Your task to perform on an android device: change timer sound Image 0: 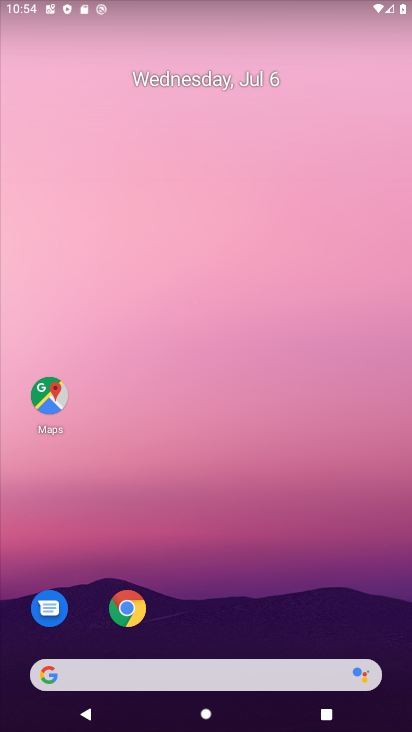
Step 0: drag from (207, 540) to (216, 334)
Your task to perform on an android device: change timer sound Image 1: 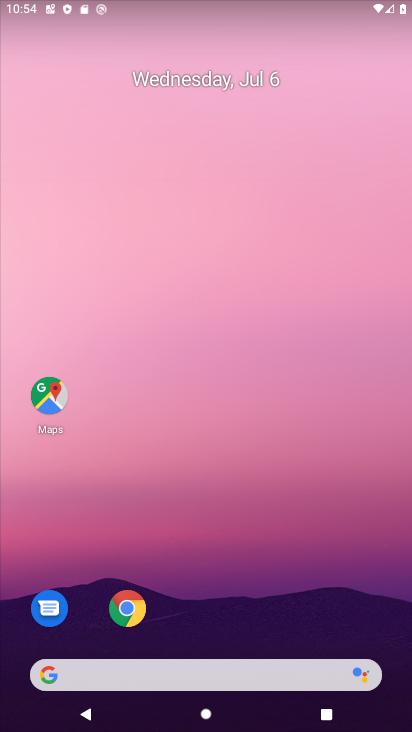
Step 1: drag from (196, 656) to (221, 174)
Your task to perform on an android device: change timer sound Image 2: 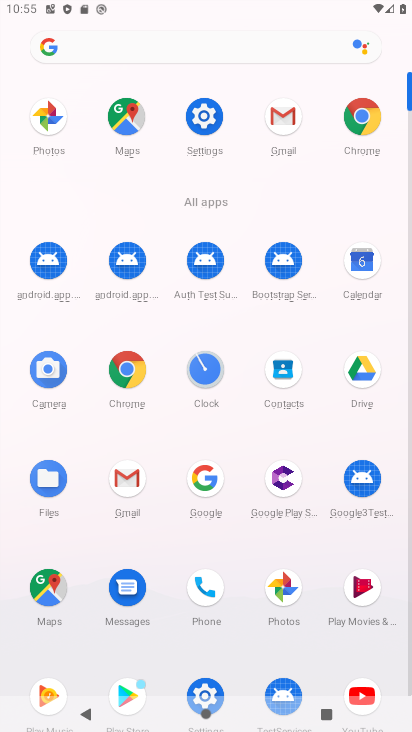
Step 2: click (200, 374)
Your task to perform on an android device: change timer sound Image 3: 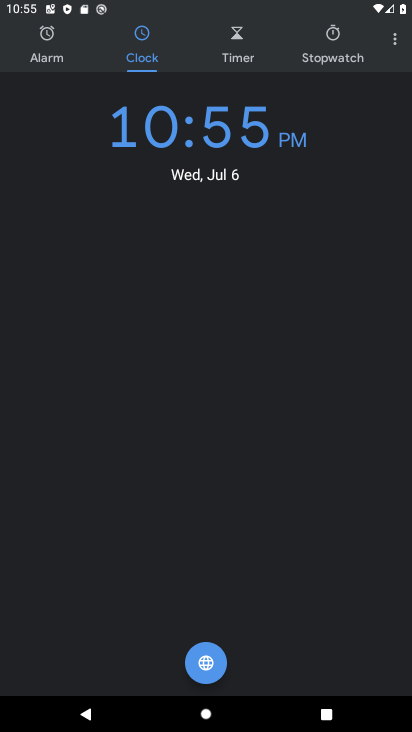
Step 3: click (391, 46)
Your task to perform on an android device: change timer sound Image 4: 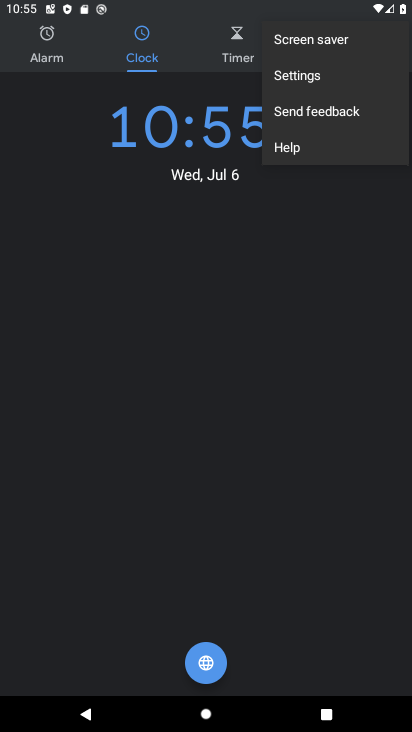
Step 4: click (298, 77)
Your task to perform on an android device: change timer sound Image 5: 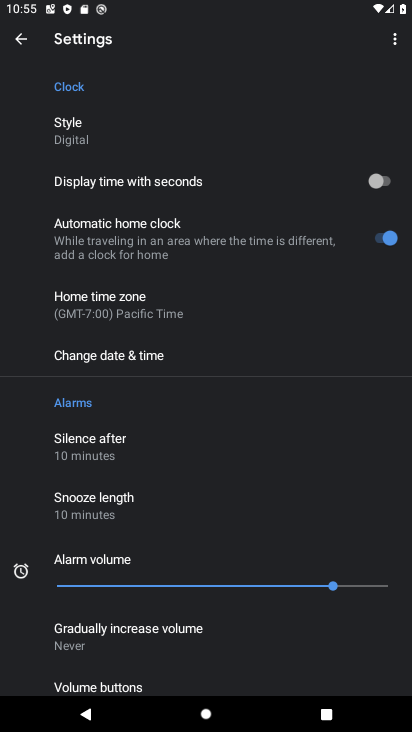
Step 5: click (84, 497)
Your task to perform on an android device: change timer sound Image 6: 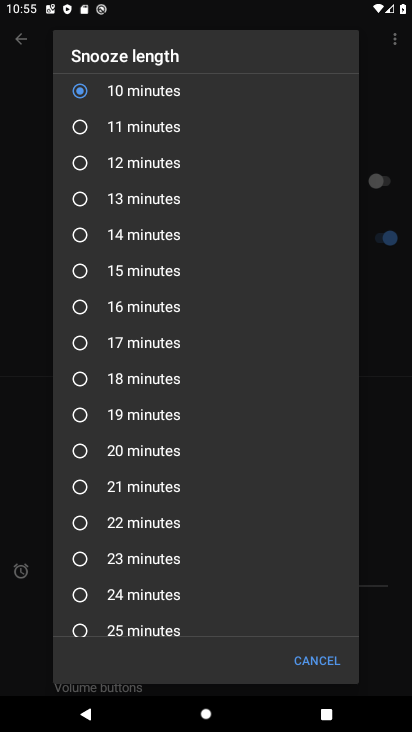
Step 6: click (400, 515)
Your task to perform on an android device: change timer sound Image 7: 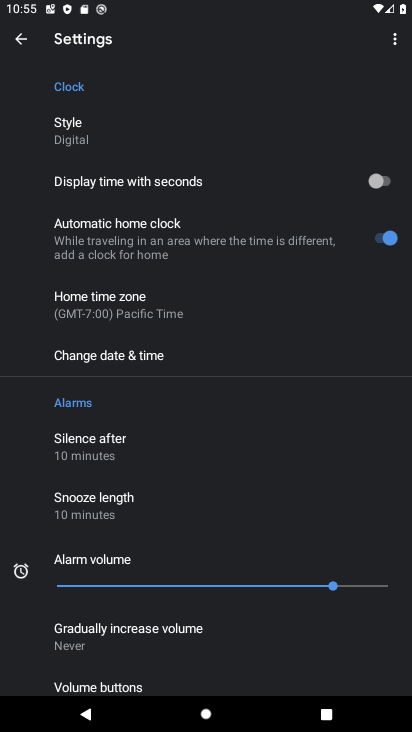
Step 7: drag from (94, 684) to (115, 395)
Your task to perform on an android device: change timer sound Image 8: 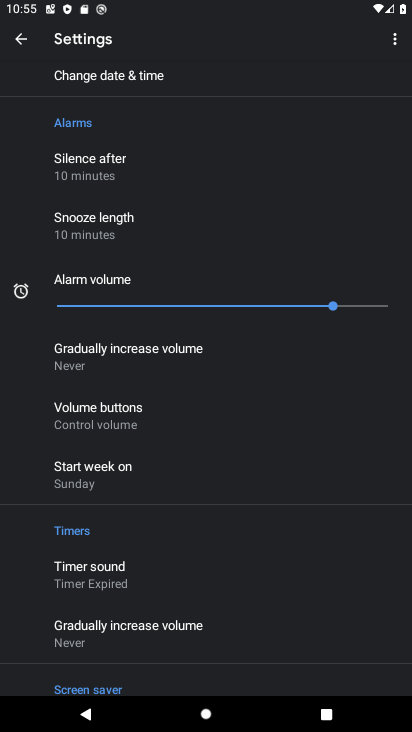
Step 8: click (96, 573)
Your task to perform on an android device: change timer sound Image 9: 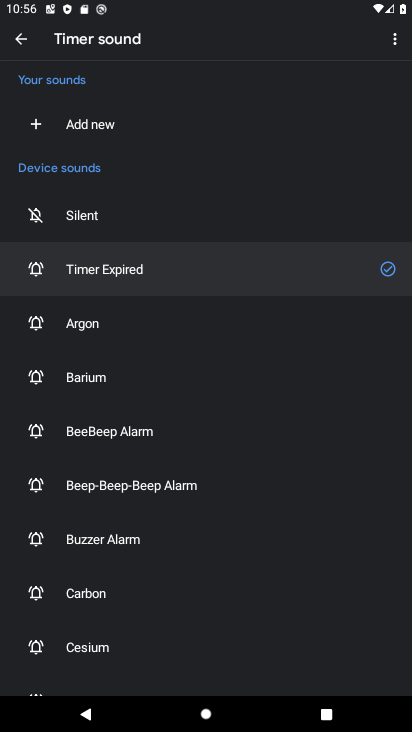
Step 9: click (88, 317)
Your task to perform on an android device: change timer sound Image 10: 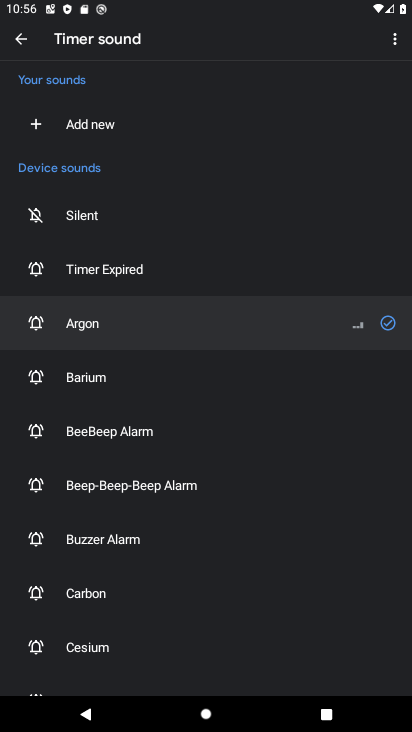
Step 10: task complete